Your task to perform on an android device: Show me the alarms in the clock app Image 0: 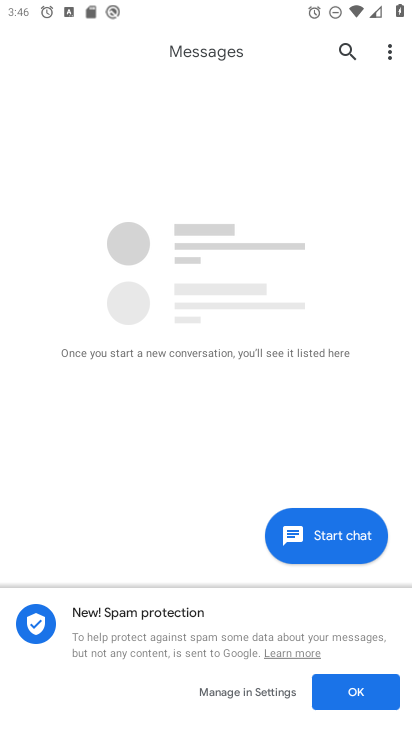
Step 0: press home button
Your task to perform on an android device: Show me the alarms in the clock app Image 1: 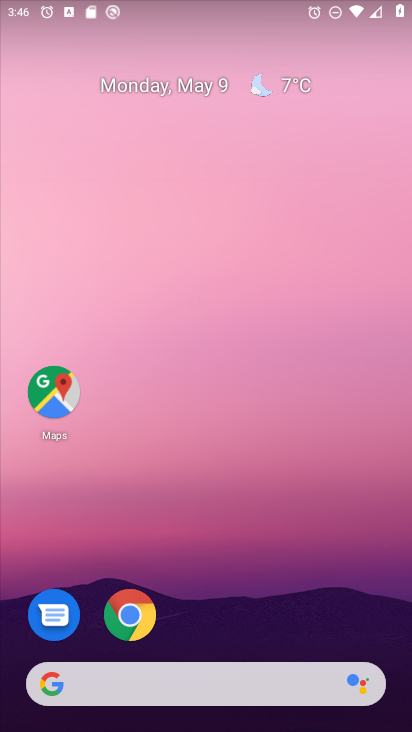
Step 1: drag from (385, 621) to (317, 89)
Your task to perform on an android device: Show me the alarms in the clock app Image 2: 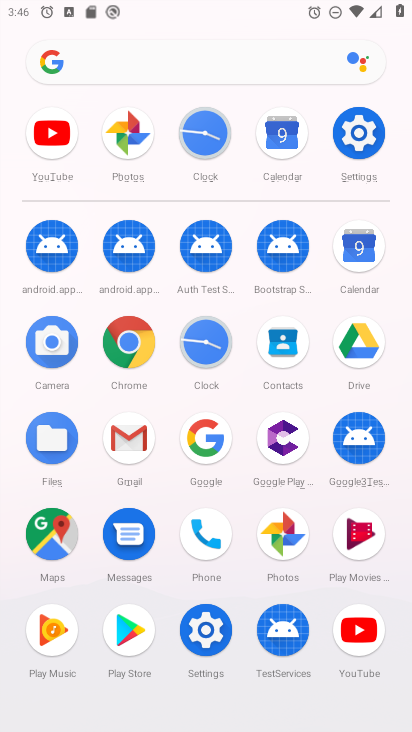
Step 2: click (201, 342)
Your task to perform on an android device: Show me the alarms in the clock app Image 3: 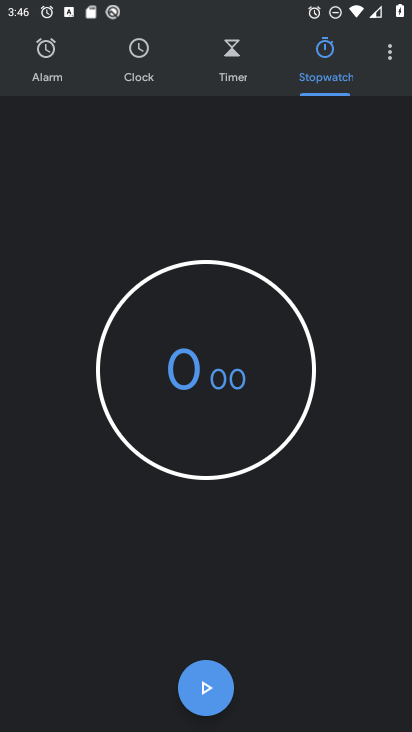
Step 3: click (42, 54)
Your task to perform on an android device: Show me the alarms in the clock app Image 4: 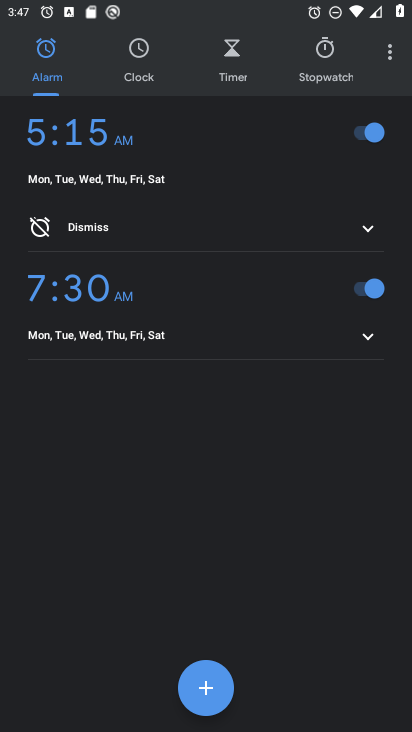
Step 4: task complete